Your task to perform on an android device: open chrome and create a bookmark for the current page Image 0: 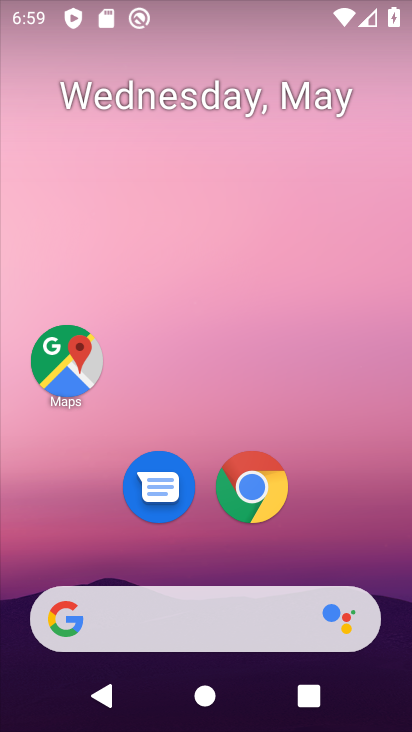
Step 0: drag from (346, 545) to (297, 46)
Your task to perform on an android device: open chrome and create a bookmark for the current page Image 1: 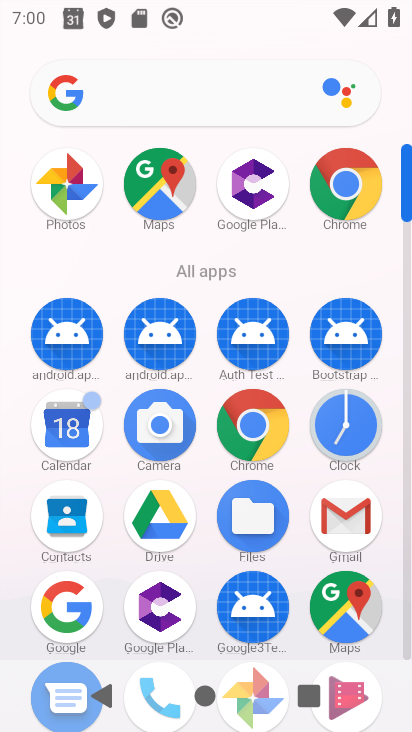
Step 1: click (331, 187)
Your task to perform on an android device: open chrome and create a bookmark for the current page Image 2: 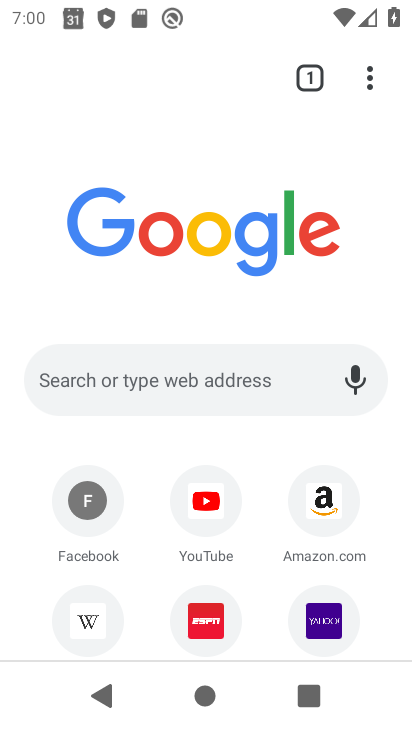
Step 2: task complete